Your task to perform on an android device: open wifi settings Image 0: 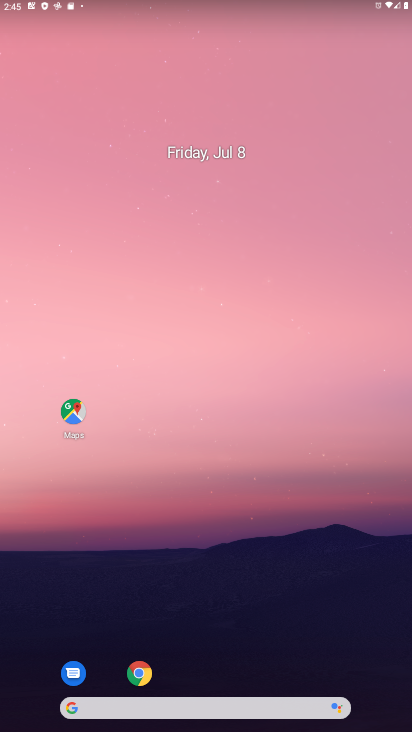
Step 0: drag from (387, 646) to (347, 275)
Your task to perform on an android device: open wifi settings Image 1: 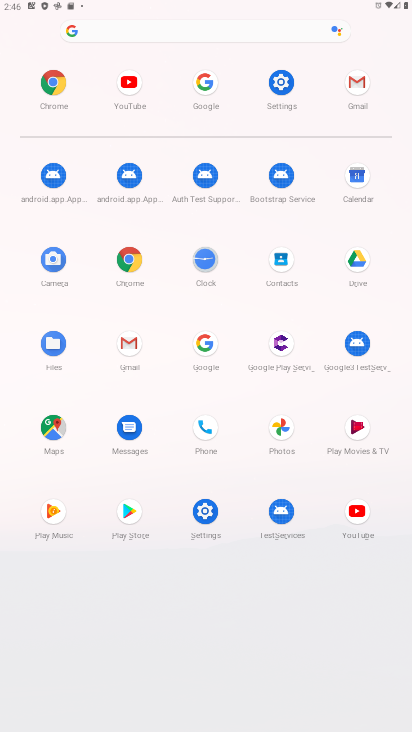
Step 1: click (281, 75)
Your task to perform on an android device: open wifi settings Image 2: 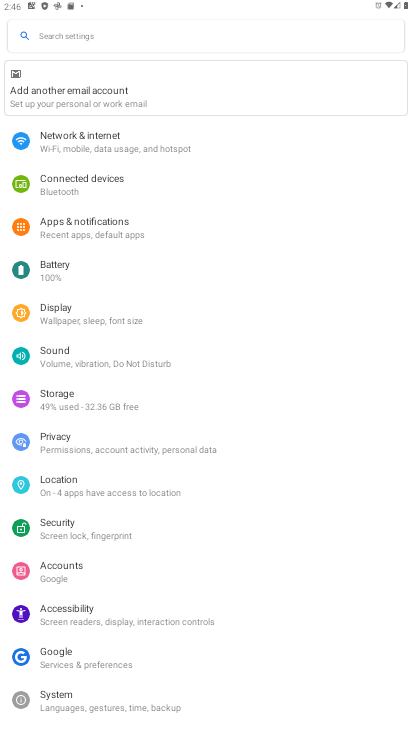
Step 2: click (80, 140)
Your task to perform on an android device: open wifi settings Image 3: 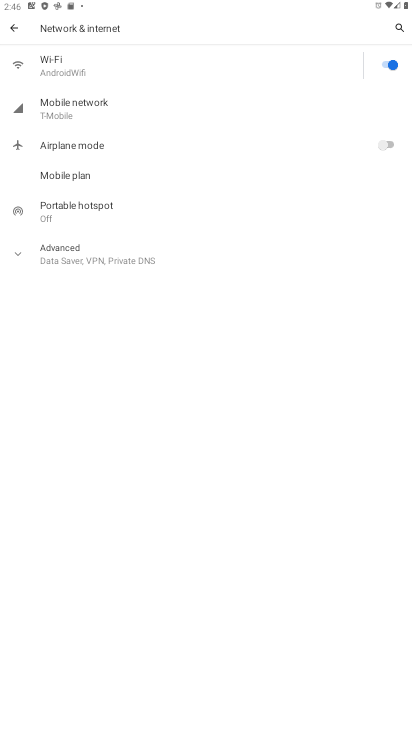
Step 3: click (122, 63)
Your task to perform on an android device: open wifi settings Image 4: 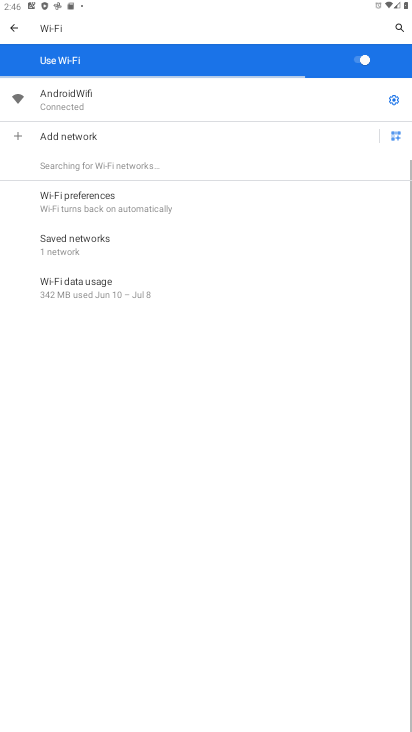
Step 4: click (389, 100)
Your task to perform on an android device: open wifi settings Image 5: 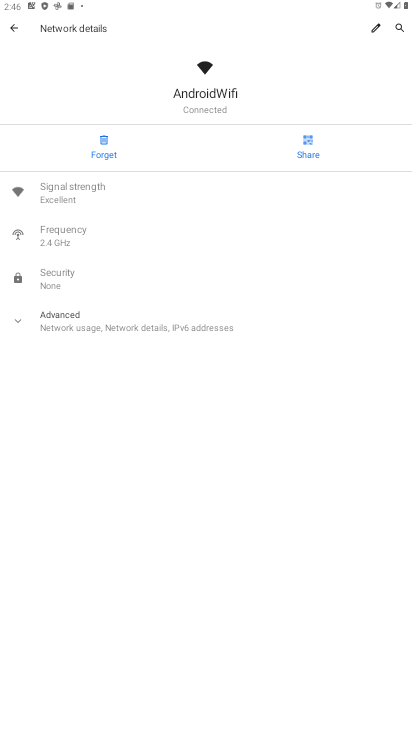
Step 5: task complete